Your task to perform on an android device: Clear the shopping cart on newegg.com. Search for jbl charge 4 on newegg.com, select the first entry, add it to the cart, then select checkout. Image 0: 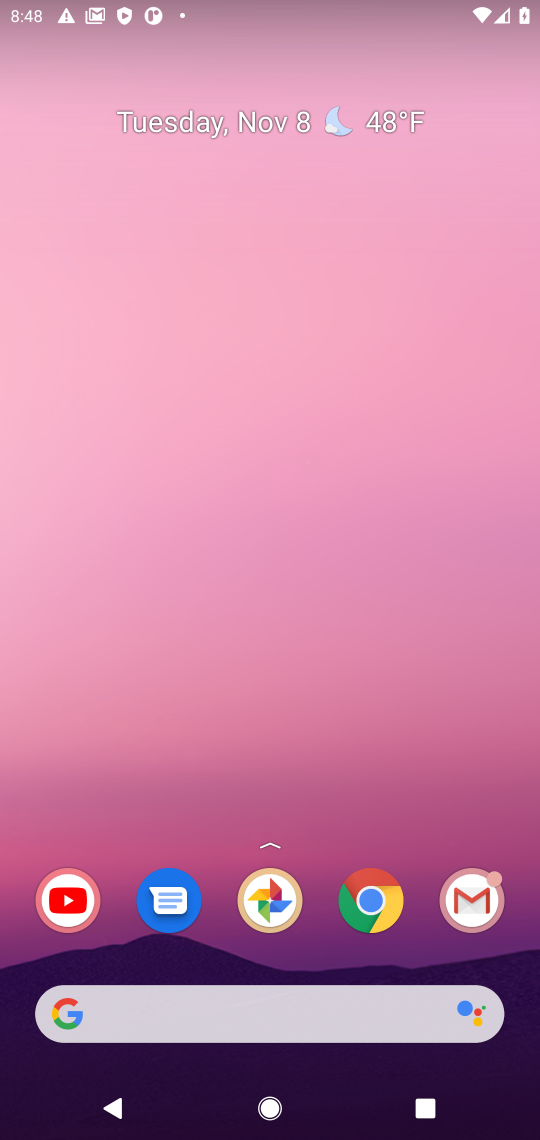
Step 0: click (368, 912)
Your task to perform on an android device: Clear the shopping cart on newegg.com. Search for jbl charge 4 on newegg.com, select the first entry, add it to the cart, then select checkout. Image 1: 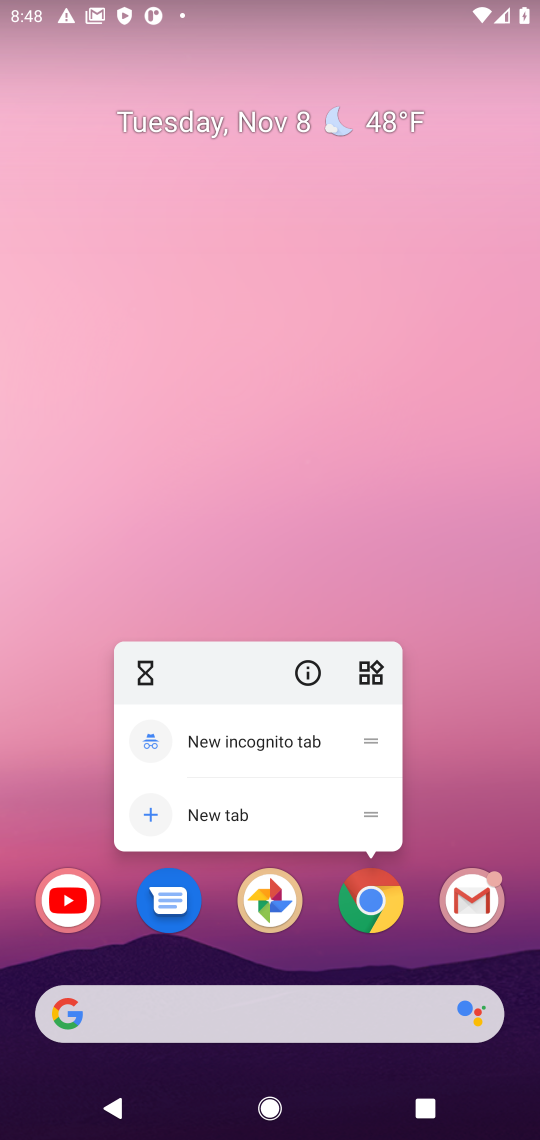
Step 1: click (360, 912)
Your task to perform on an android device: Clear the shopping cart on newegg.com. Search for jbl charge 4 on newegg.com, select the first entry, add it to the cart, then select checkout. Image 2: 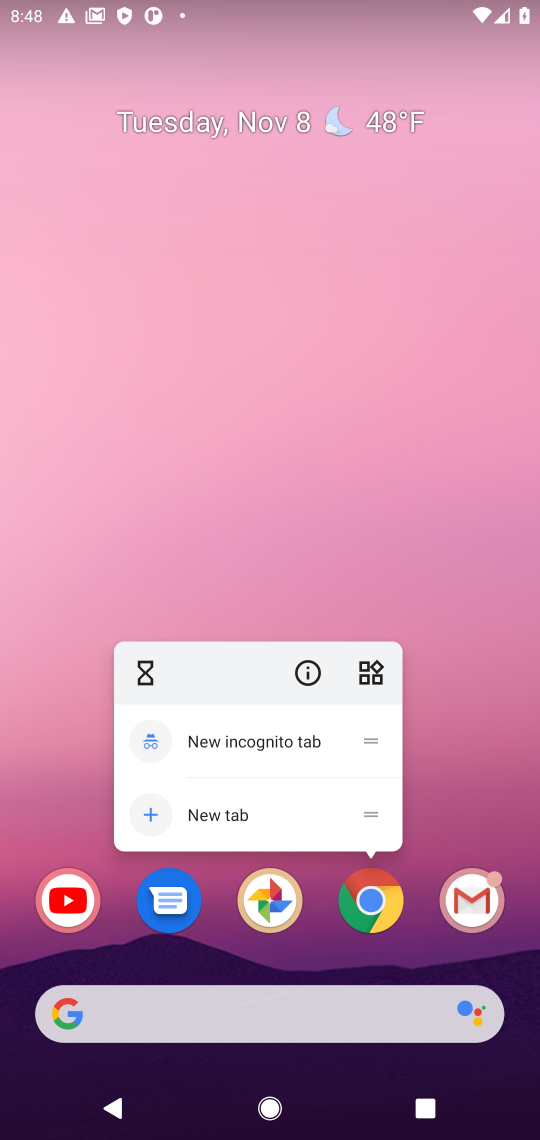
Step 2: click (359, 912)
Your task to perform on an android device: Clear the shopping cart on newegg.com. Search for jbl charge 4 on newegg.com, select the first entry, add it to the cart, then select checkout. Image 3: 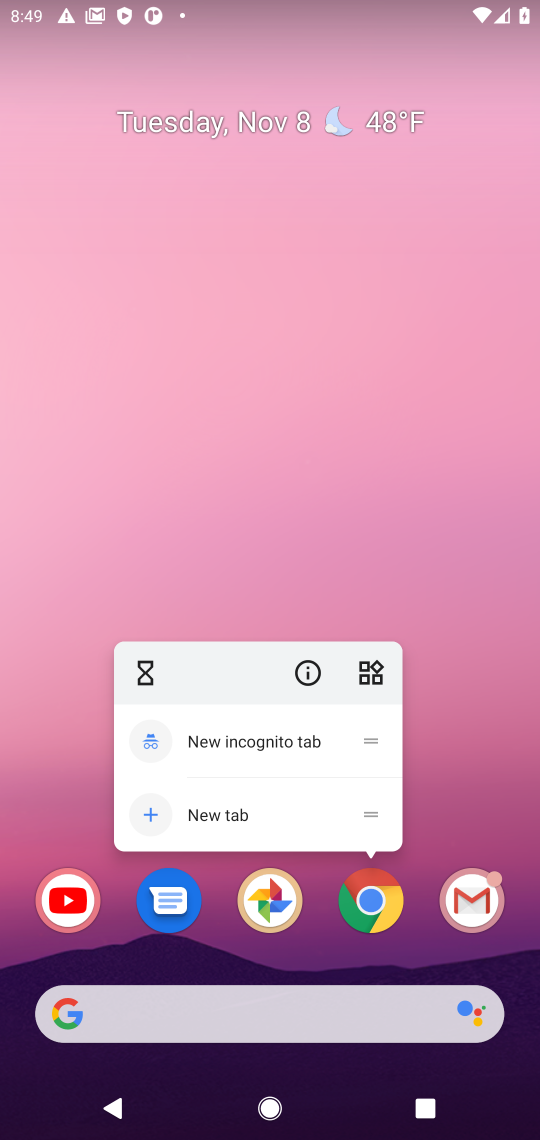
Step 3: click (384, 901)
Your task to perform on an android device: Clear the shopping cart on newegg.com. Search for jbl charge 4 on newegg.com, select the first entry, add it to the cart, then select checkout. Image 4: 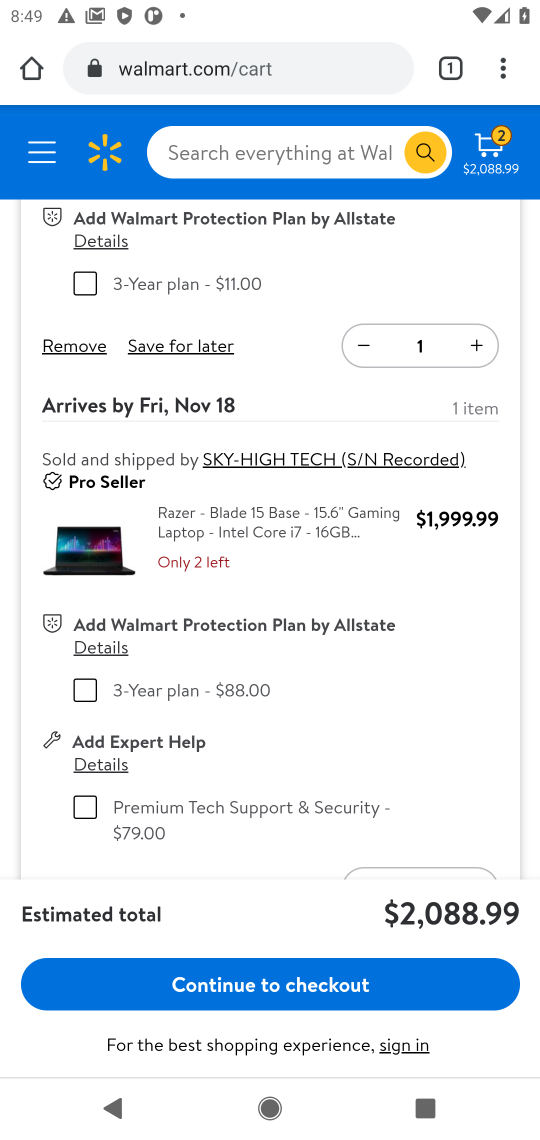
Step 4: click (186, 72)
Your task to perform on an android device: Clear the shopping cart on newegg.com. Search for jbl charge 4 on newegg.com, select the first entry, add it to the cart, then select checkout. Image 5: 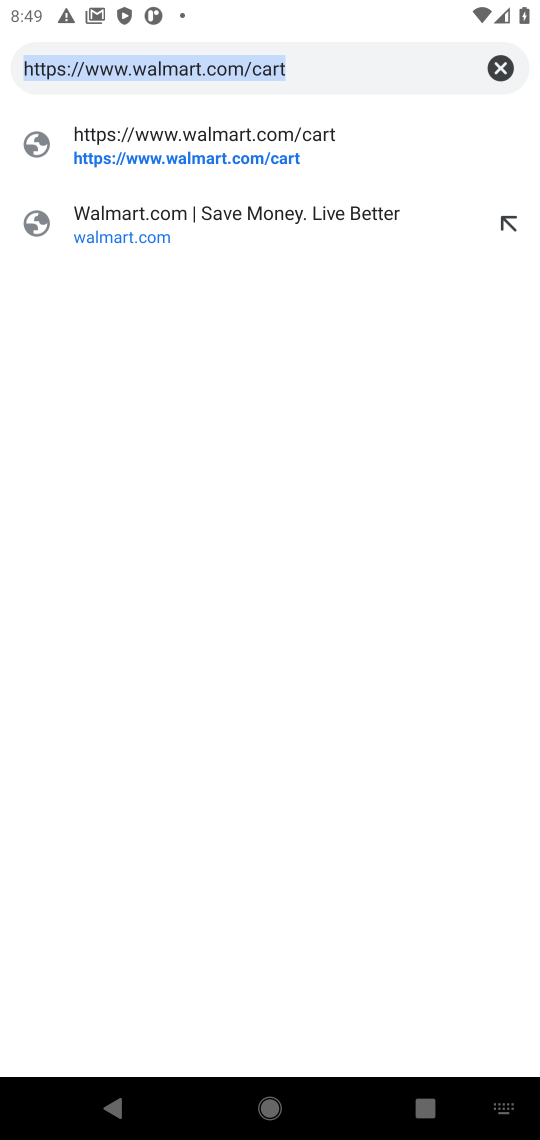
Step 5: click (499, 73)
Your task to perform on an android device: Clear the shopping cart on newegg.com. Search for jbl charge 4 on newegg.com, select the first entry, add it to the cart, then select checkout. Image 6: 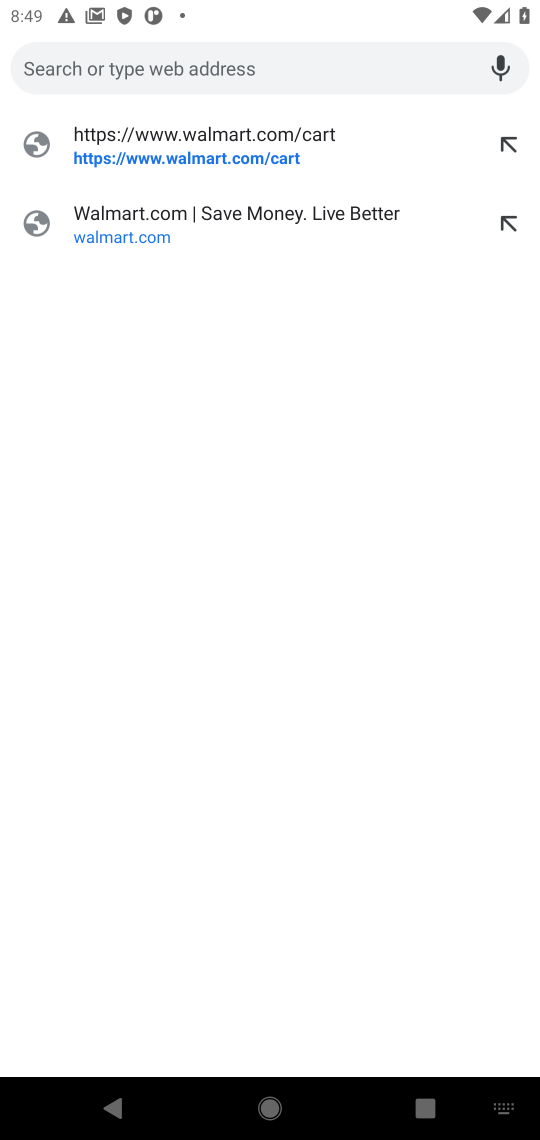
Step 6: type "newegg"
Your task to perform on an android device: Clear the shopping cart on newegg.com. Search for jbl charge 4 on newegg.com, select the first entry, add it to the cart, then select checkout. Image 7: 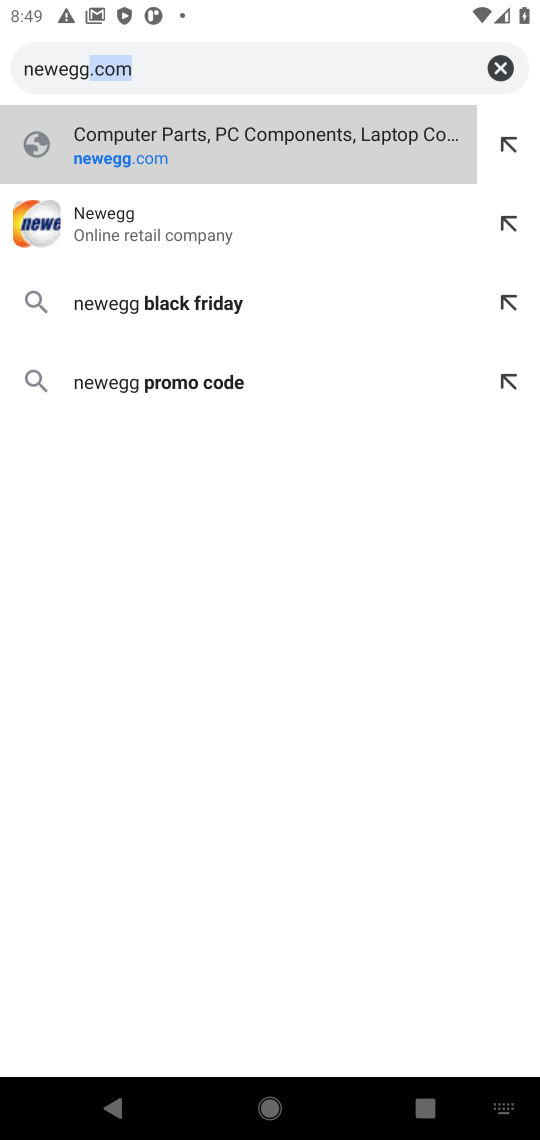
Step 7: click (61, 226)
Your task to perform on an android device: Clear the shopping cart on newegg.com. Search for jbl charge 4 on newegg.com, select the first entry, add it to the cart, then select checkout. Image 8: 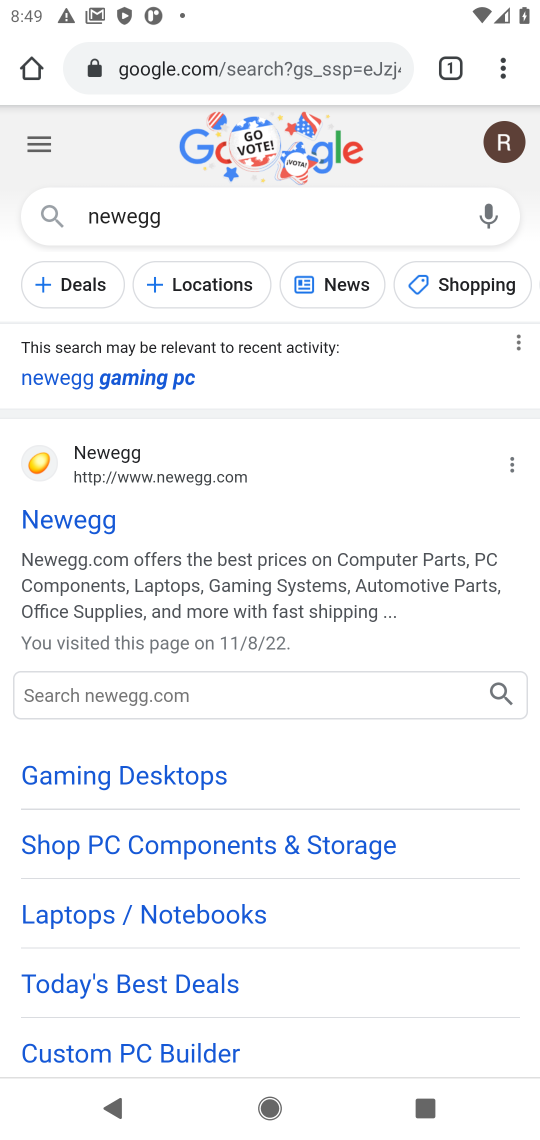
Step 8: click (69, 519)
Your task to perform on an android device: Clear the shopping cart on newegg.com. Search for jbl charge 4 on newegg.com, select the first entry, add it to the cart, then select checkout. Image 9: 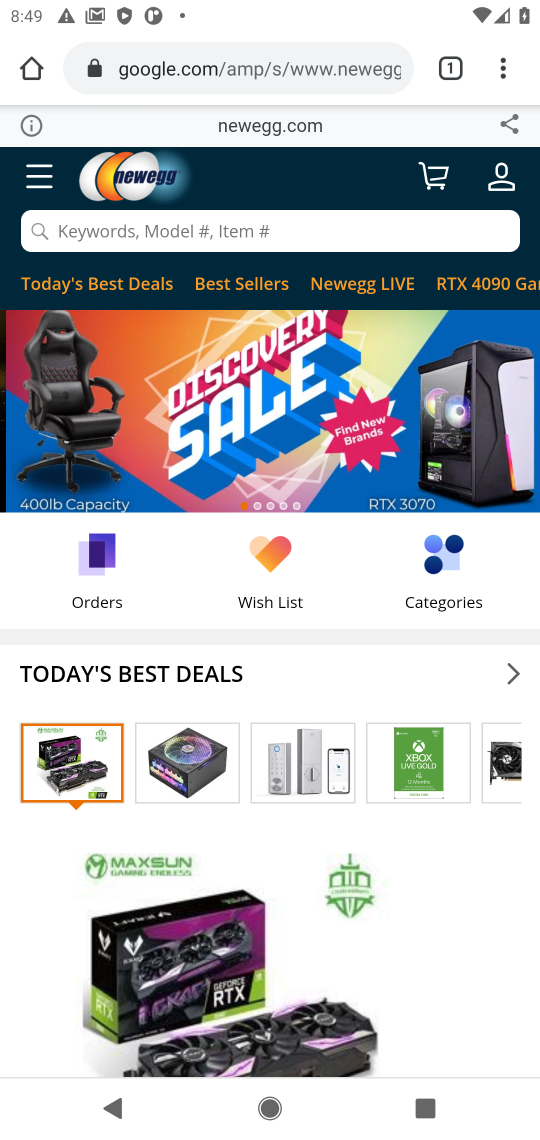
Step 9: click (166, 242)
Your task to perform on an android device: Clear the shopping cart on newegg.com. Search for jbl charge 4 on newegg.com, select the first entry, add it to the cart, then select checkout. Image 10: 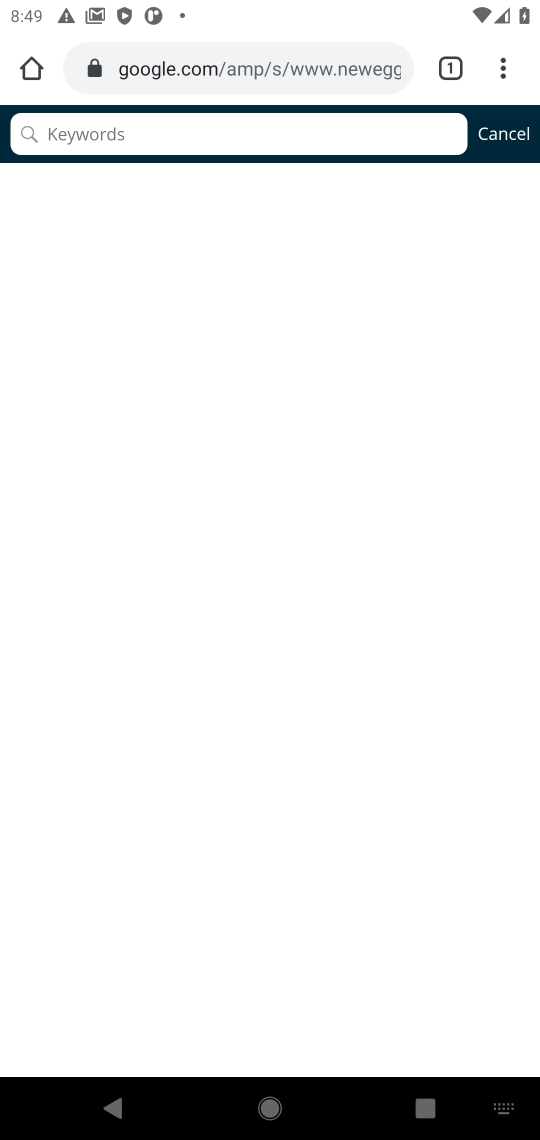
Step 10: type "jbl charges 4"
Your task to perform on an android device: Clear the shopping cart on newegg.com. Search for jbl charge 4 on newegg.com, select the first entry, add it to the cart, then select checkout. Image 11: 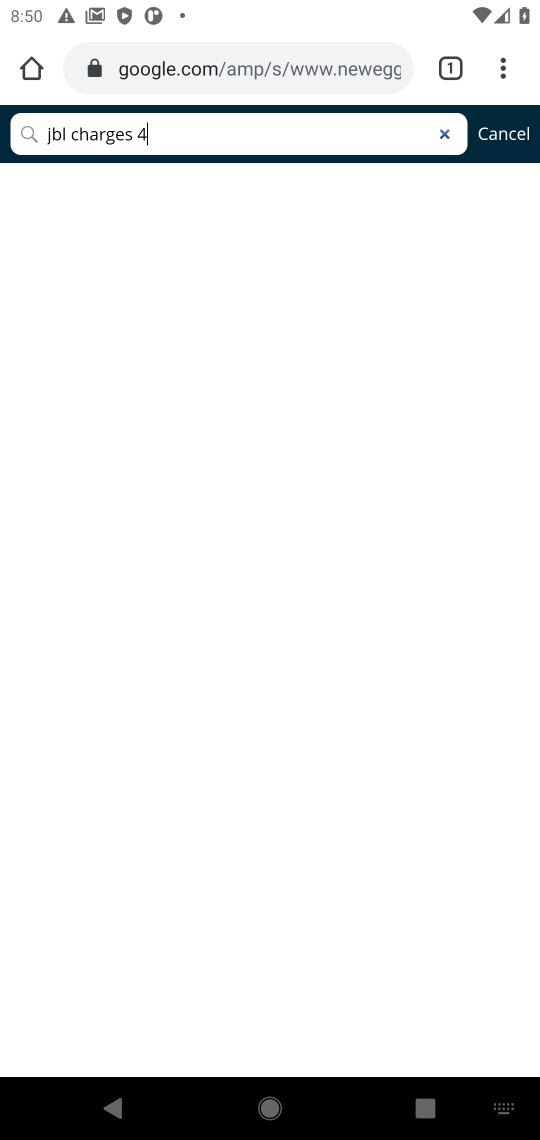
Step 11: type ""
Your task to perform on an android device: Clear the shopping cart on newegg.com. Search for jbl charge 4 on newegg.com, select the first entry, add it to the cart, then select checkout. Image 12: 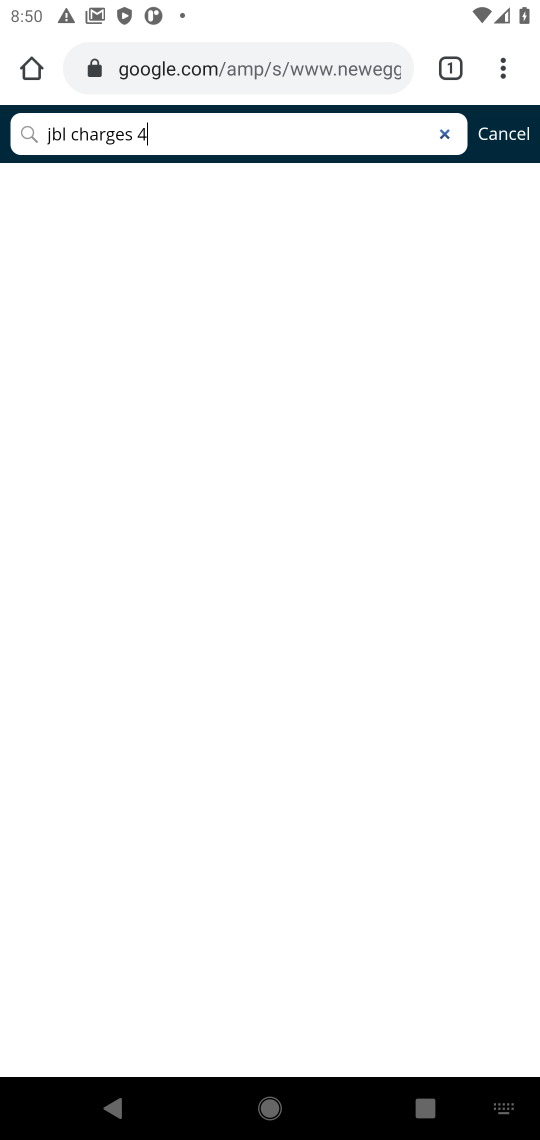
Step 12: click (440, 133)
Your task to perform on an android device: Clear the shopping cart on newegg.com. Search for jbl charge 4 on newegg.com, select the first entry, add it to the cart, then select checkout. Image 13: 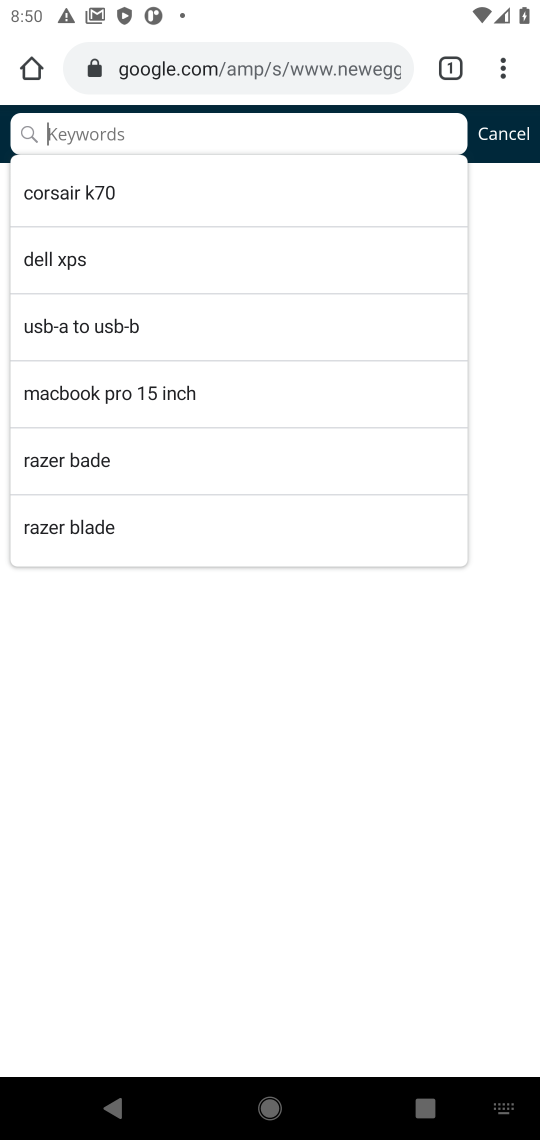
Step 13: click (85, 529)
Your task to perform on an android device: Clear the shopping cart on newegg.com. Search for jbl charge 4 on newegg.com, select the first entry, add it to the cart, then select checkout. Image 14: 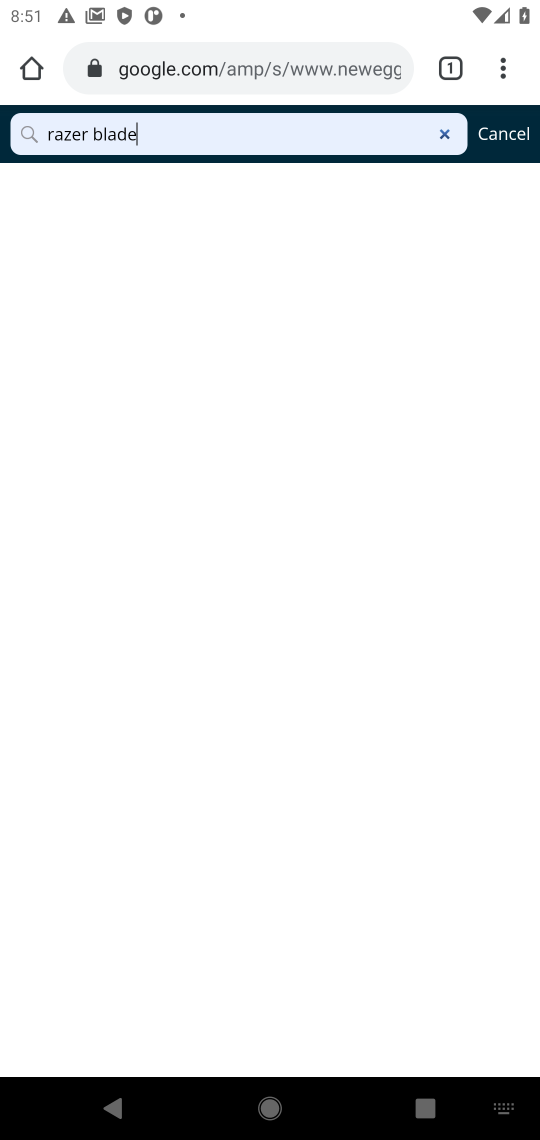
Step 14: task complete